Your task to perform on an android device: turn off notifications settings in the gmail app Image 0: 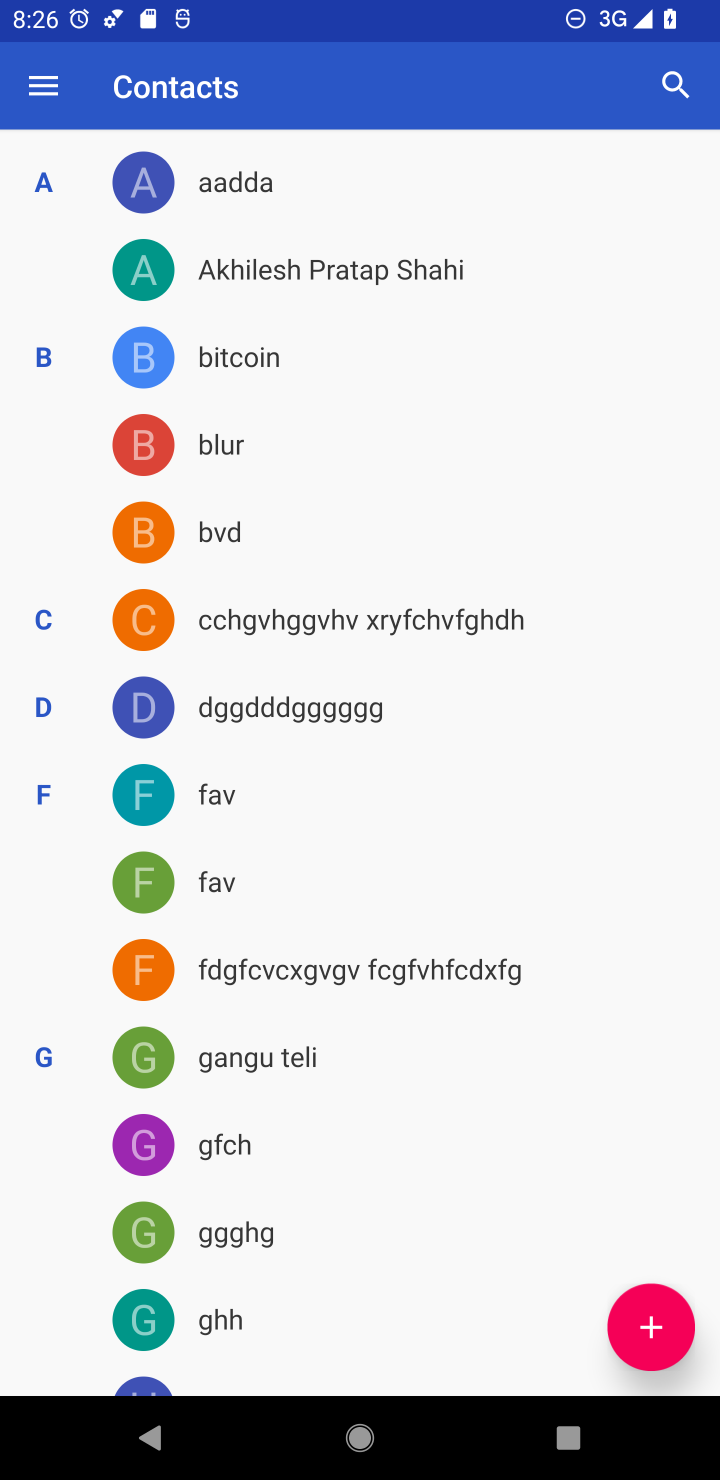
Step 0: press home button
Your task to perform on an android device: turn off notifications settings in the gmail app Image 1: 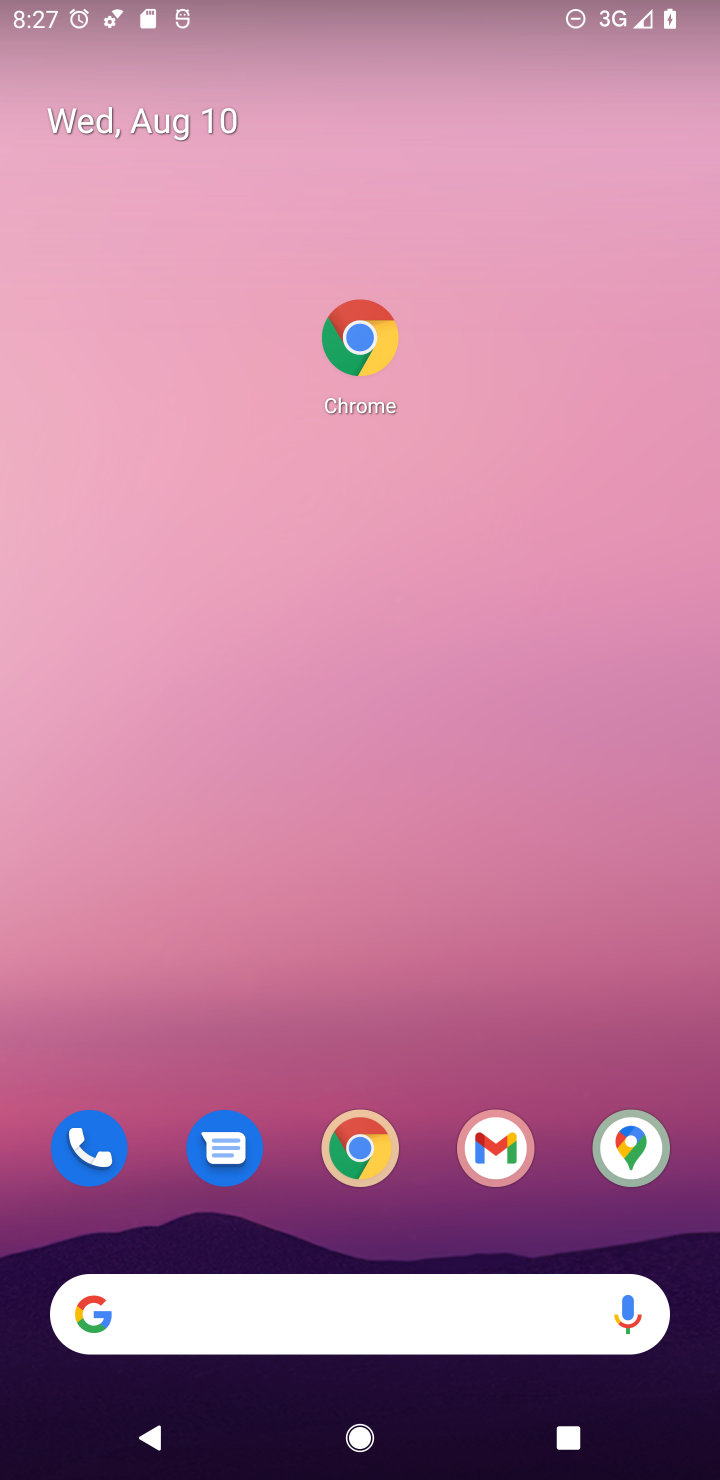
Step 1: click (494, 1155)
Your task to perform on an android device: turn off notifications settings in the gmail app Image 2: 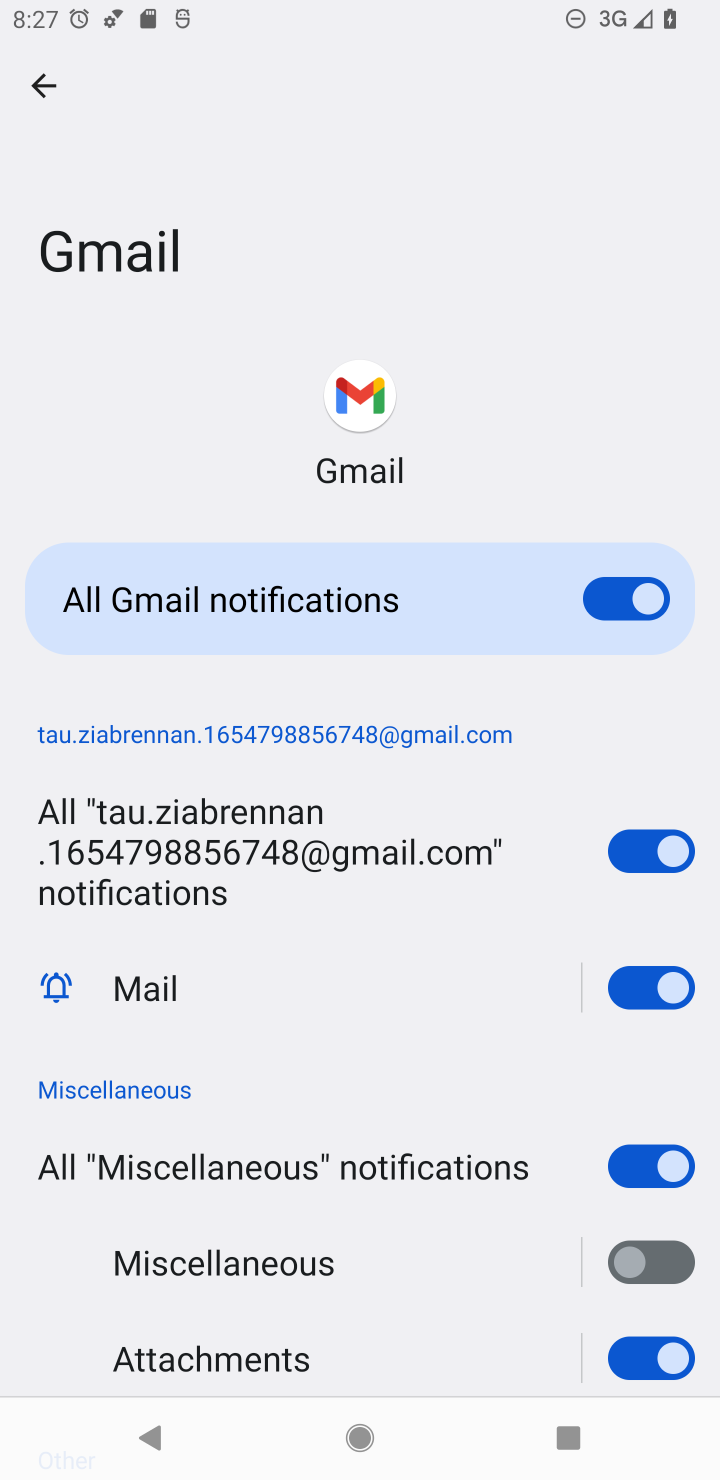
Step 2: click (622, 609)
Your task to perform on an android device: turn off notifications settings in the gmail app Image 3: 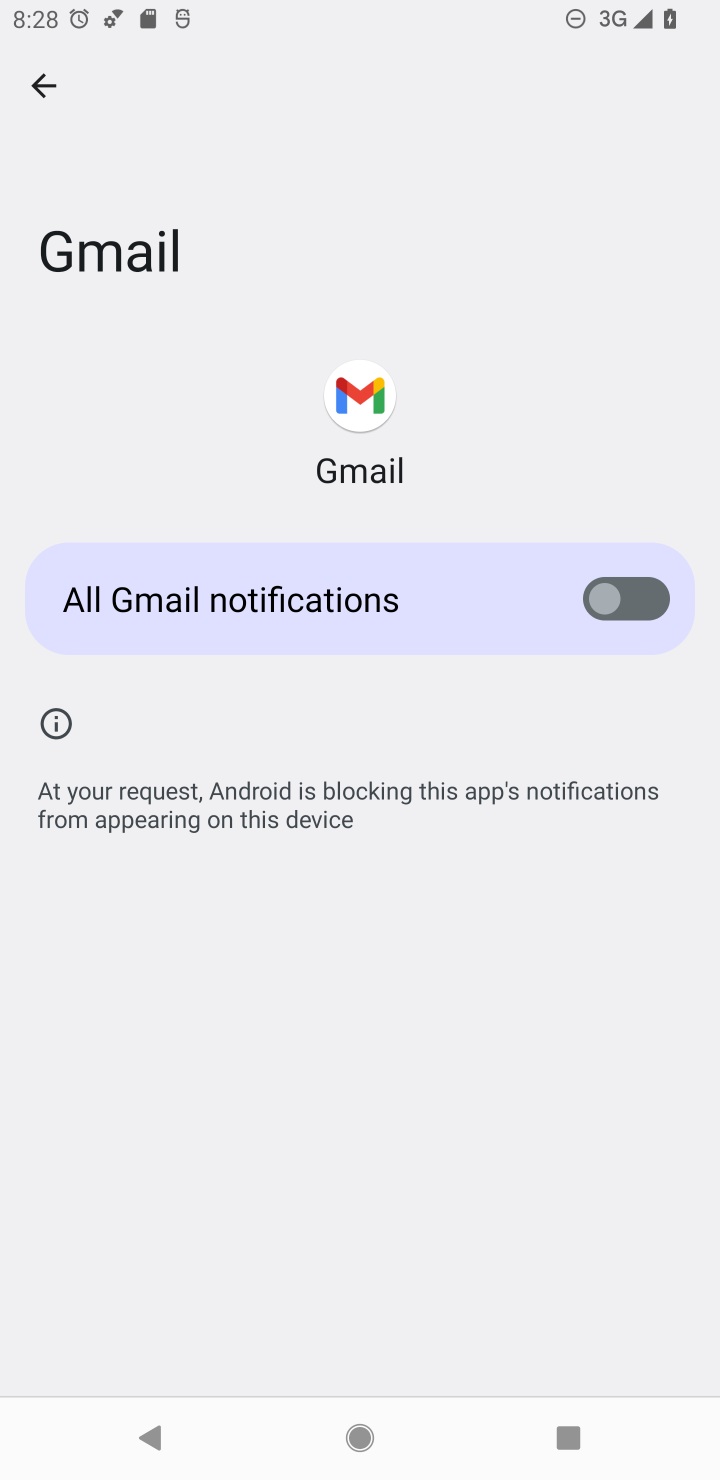
Step 3: task complete